Your task to perform on an android device: Go to CNN.com Image 0: 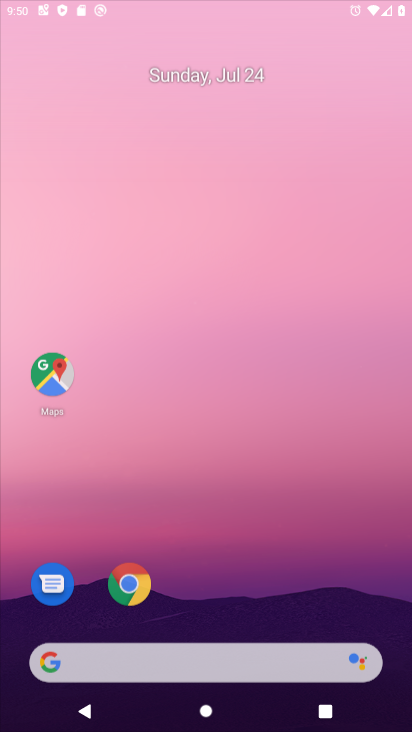
Step 0: drag from (170, 579) to (132, 116)
Your task to perform on an android device: Go to CNN.com Image 1: 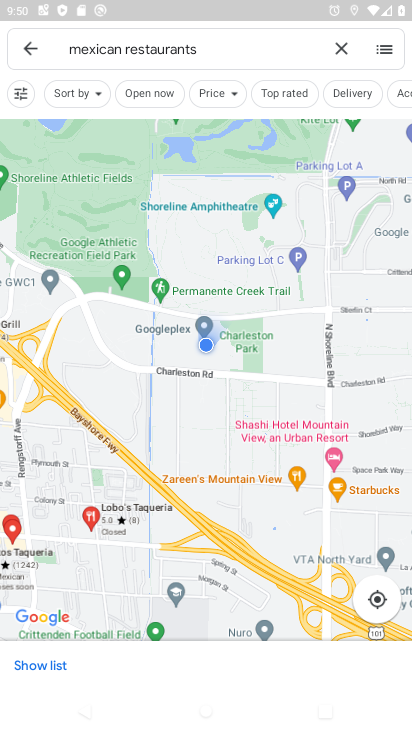
Step 1: press back button
Your task to perform on an android device: Go to CNN.com Image 2: 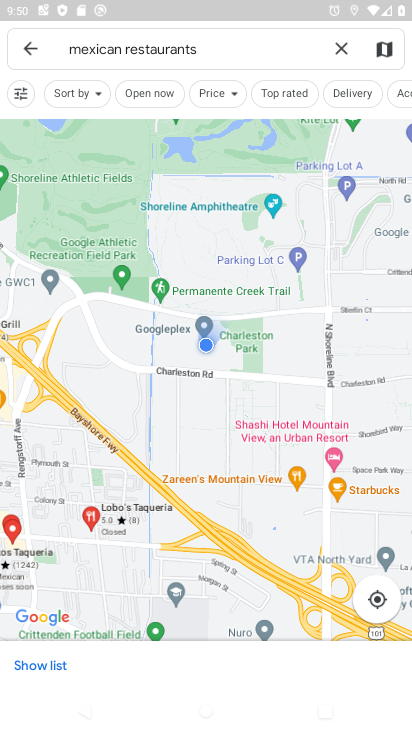
Step 2: press back button
Your task to perform on an android device: Go to CNN.com Image 3: 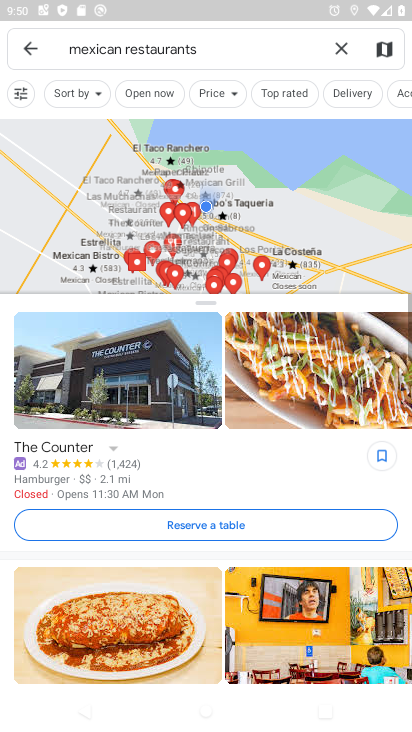
Step 3: press back button
Your task to perform on an android device: Go to CNN.com Image 4: 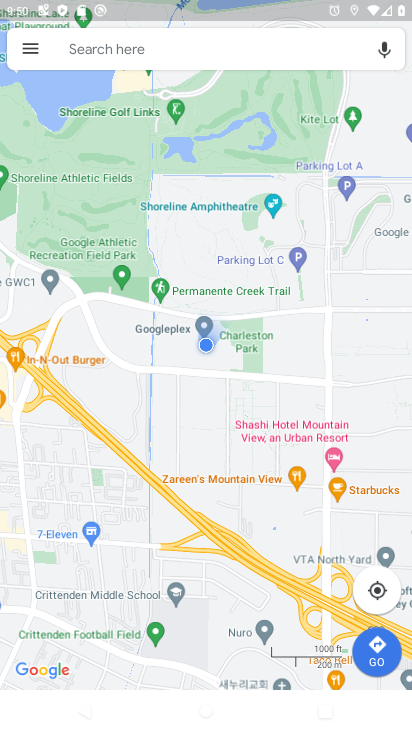
Step 4: click (341, 46)
Your task to perform on an android device: Go to CNN.com Image 5: 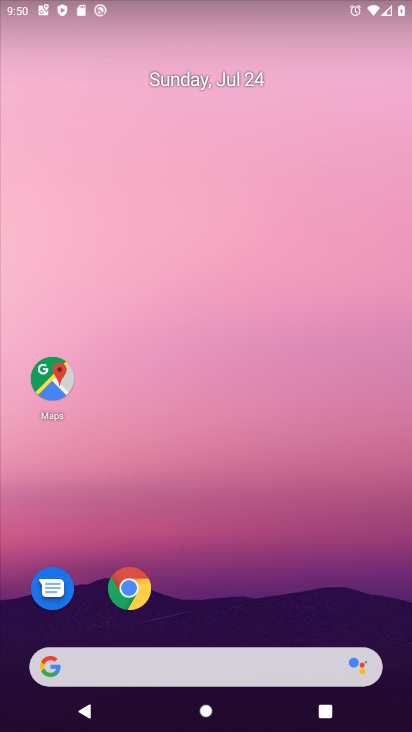
Step 5: drag from (254, 499) to (221, 97)
Your task to perform on an android device: Go to CNN.com Image 6: 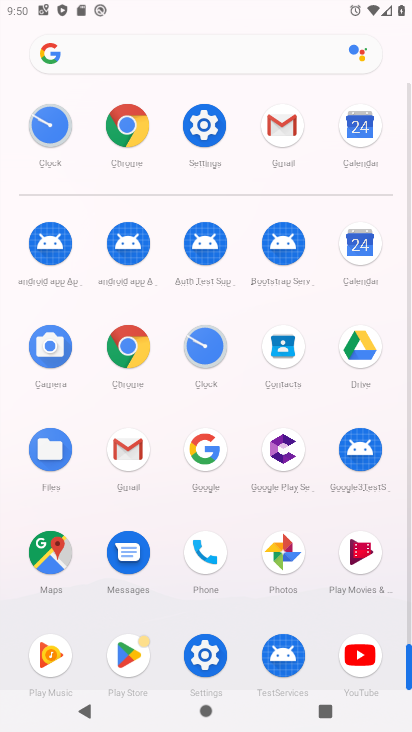
Step 6: click (123, 125)
Your task to perform on an android device: Go to CNN.com Image 7: 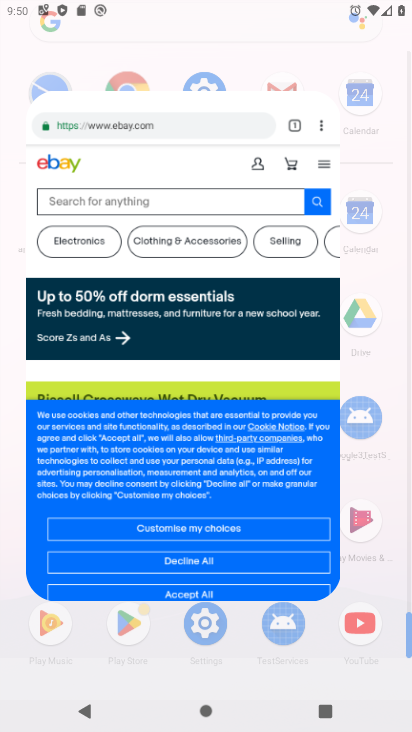
Step 7: click (127, 124)
Your task to perform on an android device: Go to CNN.com Image 8: 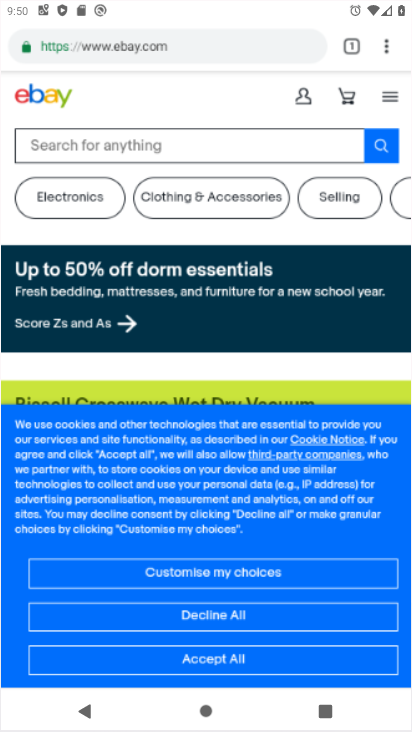
Step 8: click (127, 125)
Your task to perform on an android device: Go to CNN.com Image 9: 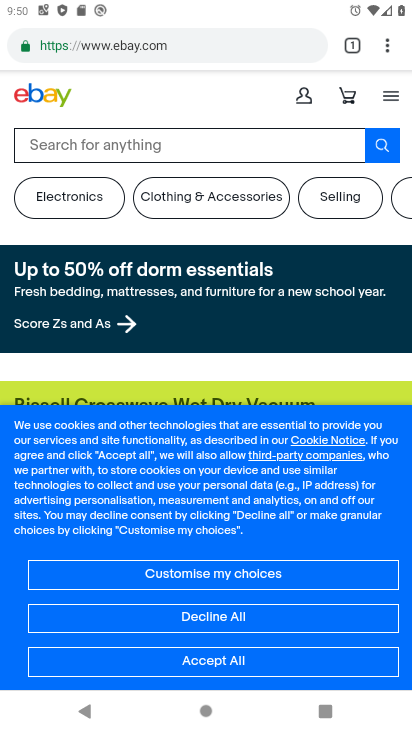
Step 9: click (85, 41)
Your task to perform on an android device: Go to CNN.com Image 10: 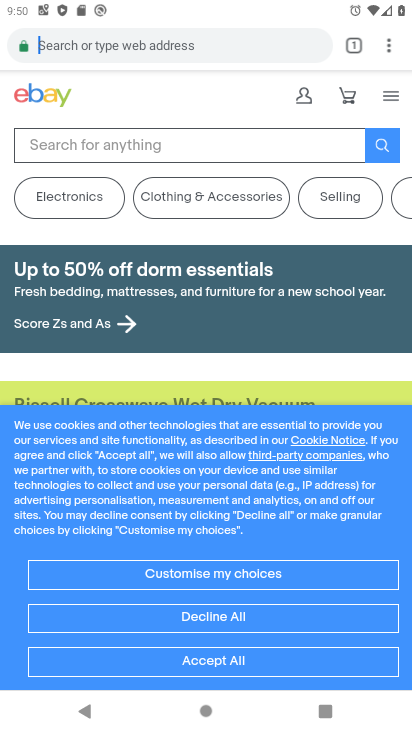
Step 10: click (88, 39)
Your task to perform on an android device: Go to CNN.com Image 11: 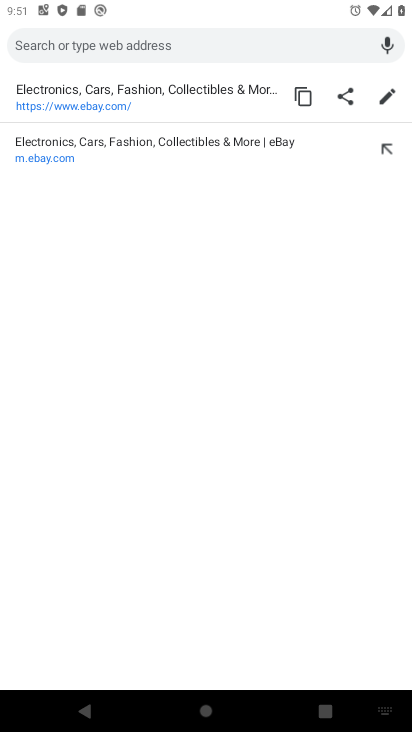
Step 11: type "CNN.com"
Your task to perform on an android device: Go to CNN.com Image 12: 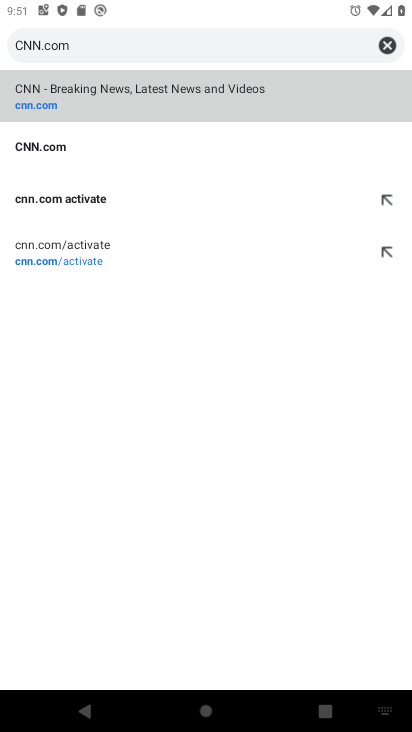
Step 12: click (125, 88)
Your task to perform on an android device: Go to CNN.com Image 13: 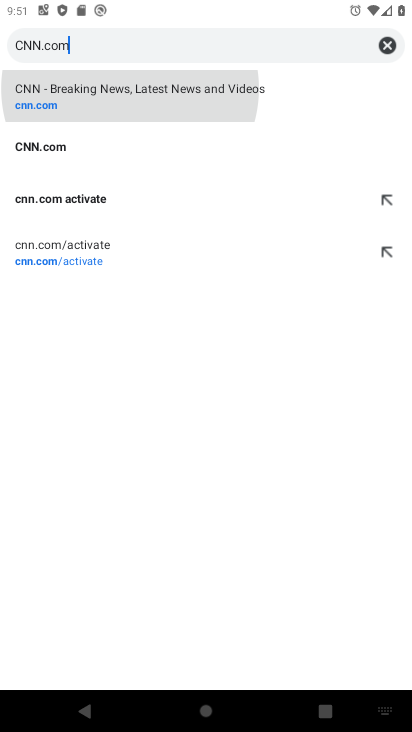
Step 13: click (130, 85)
Your task to perform on an android device: Go to CNN.com Image 14: 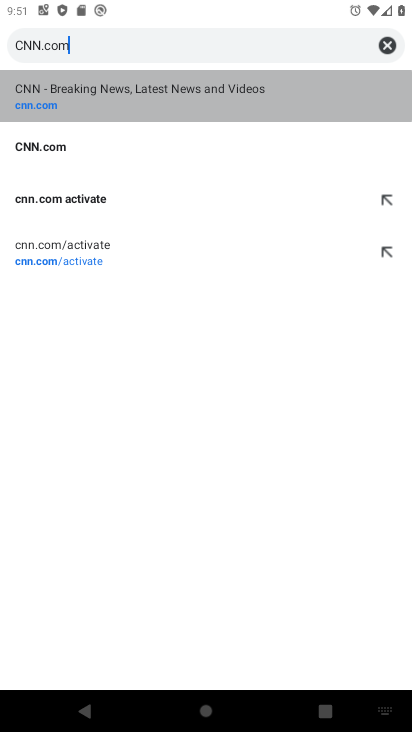
Step 14: click (131, 85)
Your task to perform on an android device: Go to CNN.com Image 15: 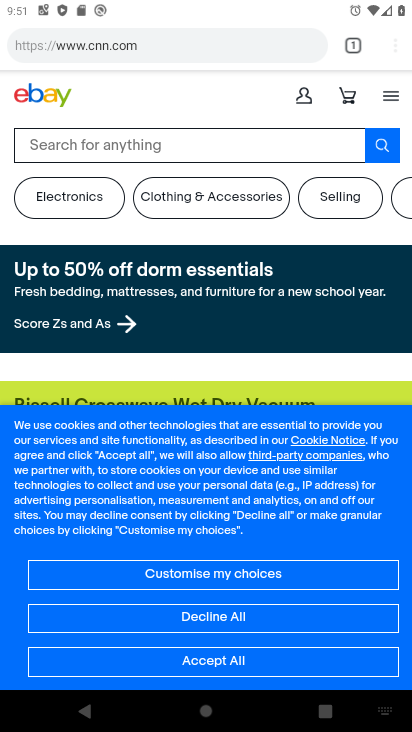
Step 15: click (131, 85)
Your task to perform on an android device: Go to CNN.com Image 16: 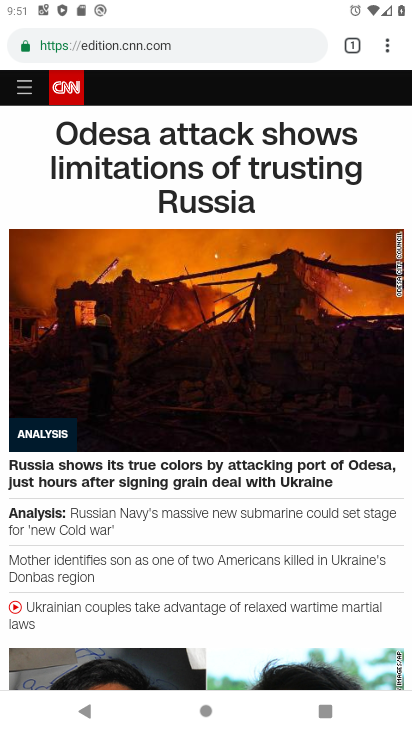
Step 16: task complete